Your task to perform on an android device: toggle improve location accuracy Image 0: 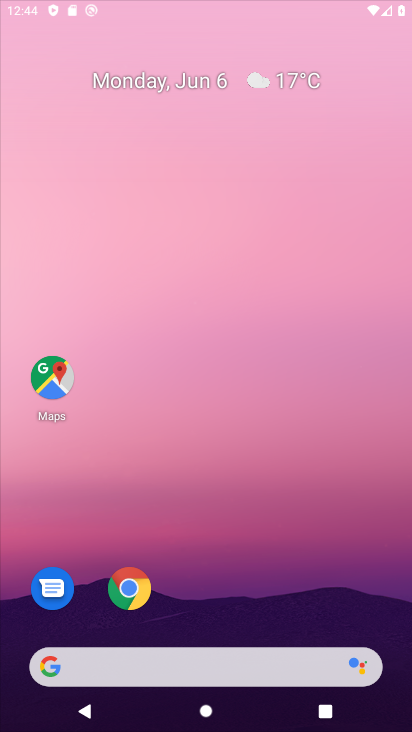
Step 0: drag from (156, 523) to (165, 90)
Your task to perform on an android device: toggle improve location accuracy Image 1: 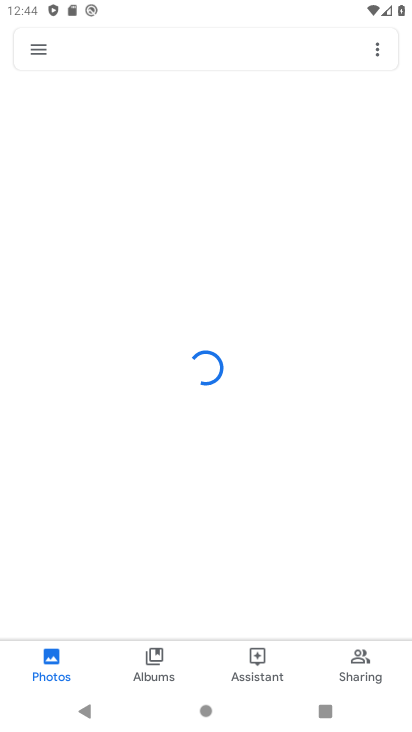
Step 1: press home button
Your task to perform on an android device: toggle improve location accuracy Image 2: 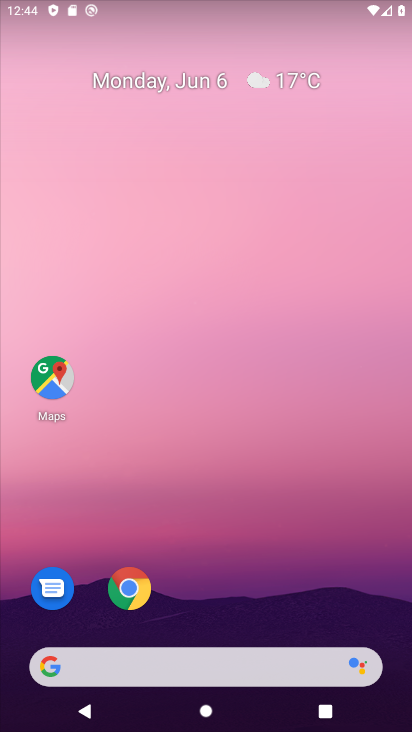
Step 2: drag from (150, 726) to (239, 0)
Your task to perform on an android device: toggle improve location accuracy Image 3: 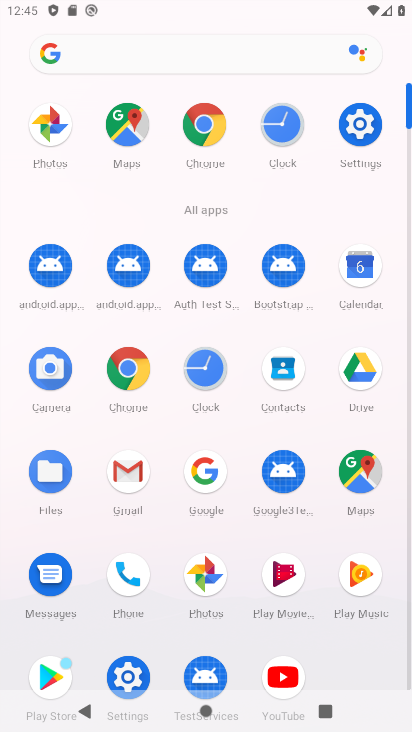
Step 3: click (365, 125)
Your task to perform on an android device: toggle improve location accuracy Image 4: 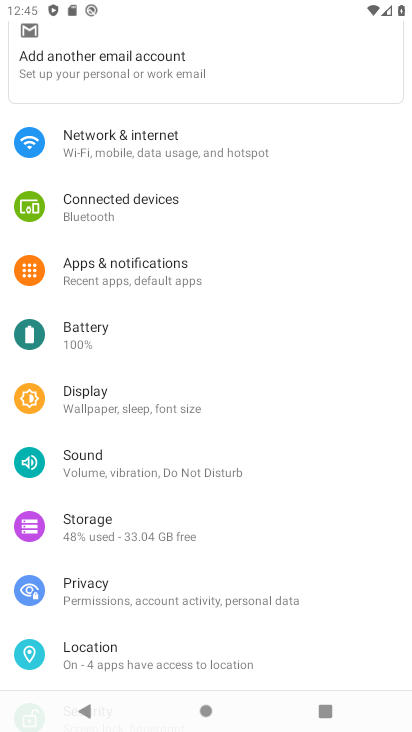
Step 4: click (143, 668)
Your task to perform on an android device: toggle improve location accuracy Image 5: 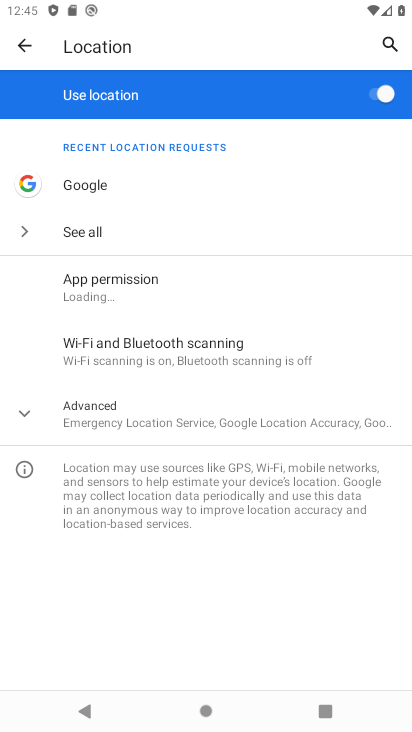
Step 5: click (125, 423)
Your task to perform on an android device: toggle improve location accuracy Image 6: 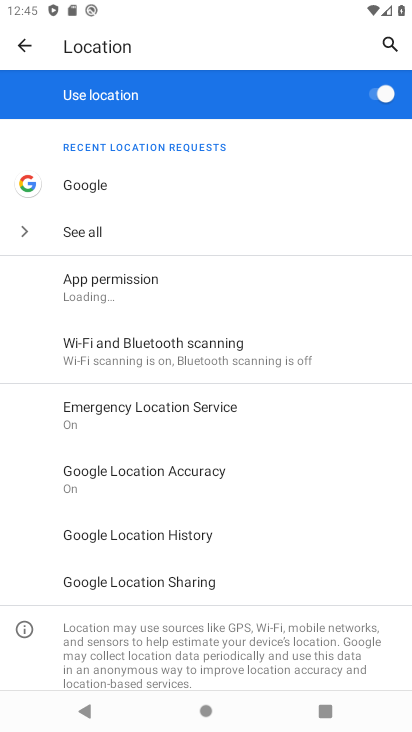
Step 6: click (168, 479)
Your task to perform on an android device: toggle improve location accuracy Image 7: 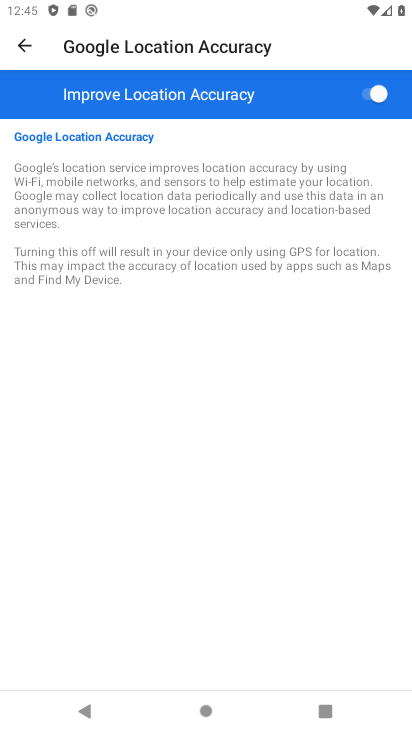
Step 7: click (378, 91)
Your task to perform on an android device: toggle improve location accuracy Image 8: 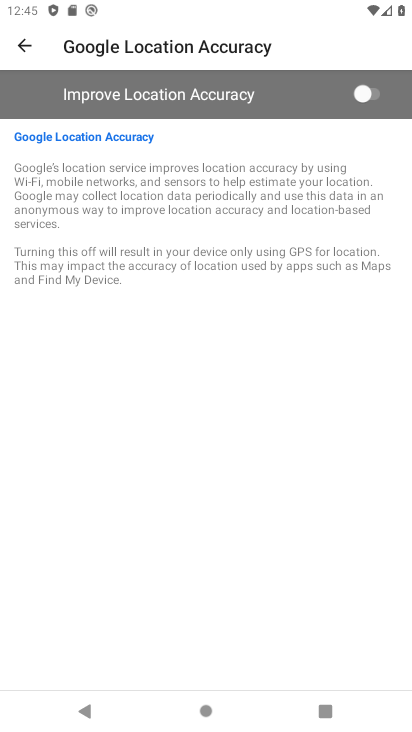
Step 8: task complete